Your task to perform on an android device: see sites visited before in the chrome app Image 0: 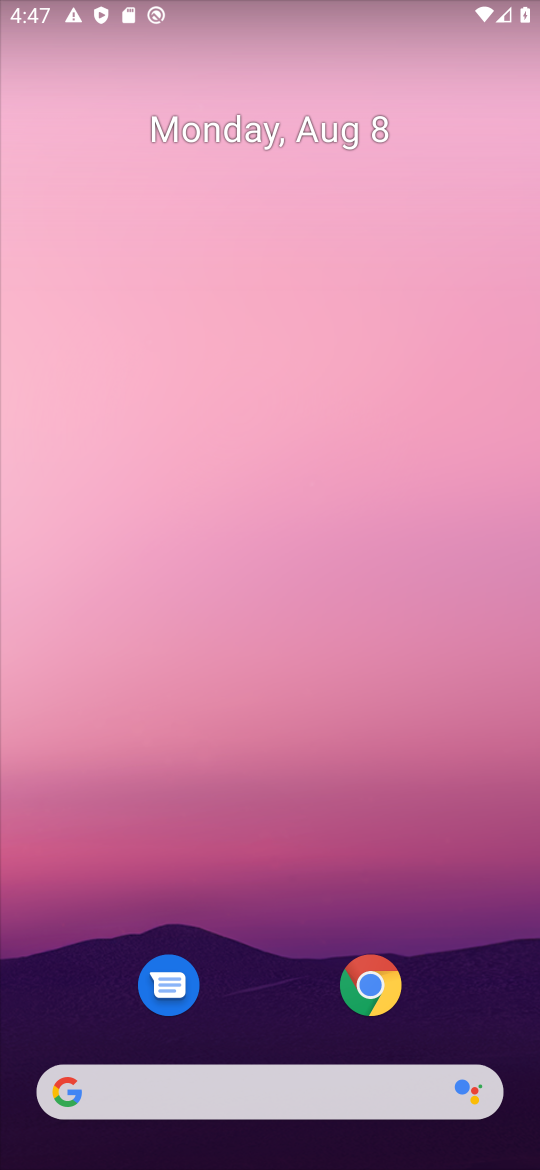
Step 0: drag from (266, 864) to (296, 265)
Your task to perform on an android device: see sites visited before in the chrome app Image 1: 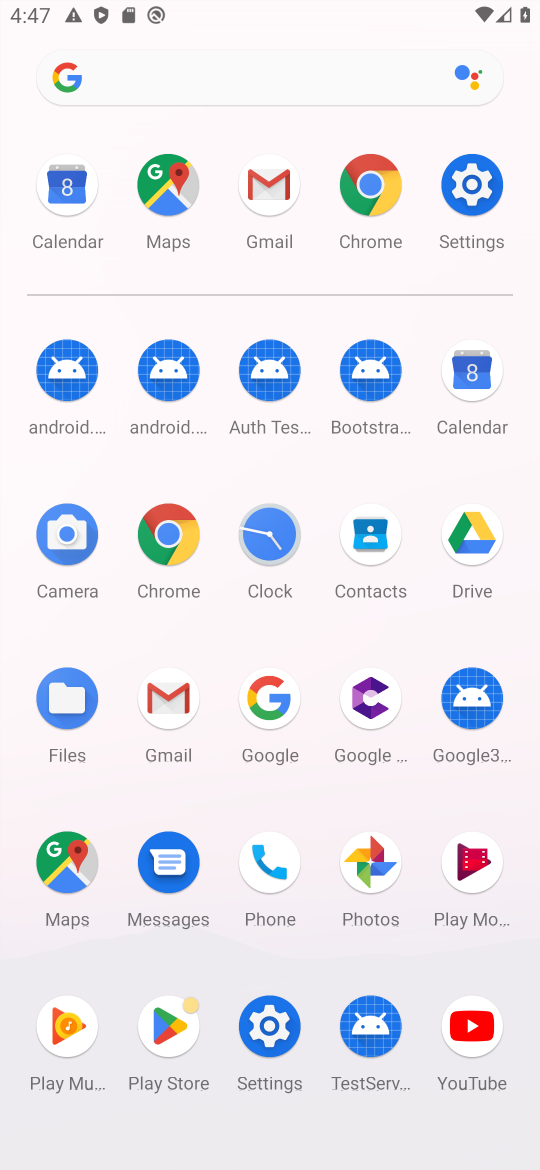
Step 1: click (387, 174)
Your task to perform on an android device: see sites visited before in the chrome app Image 2: 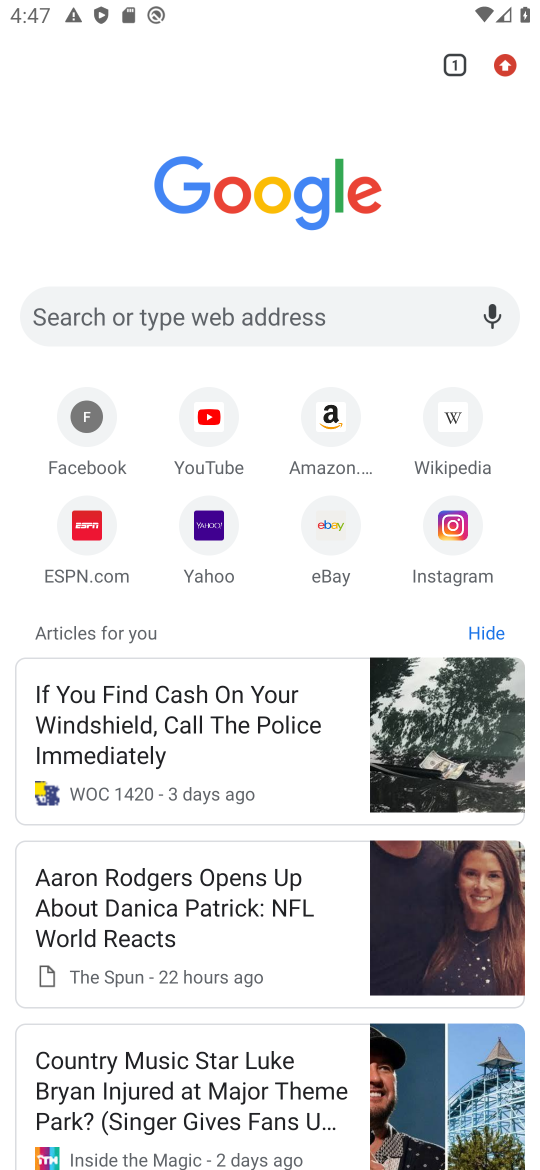
Step 2: click (518, 65)
Your task to perform on an android device: see sites visited before in the chrome app Image 3: 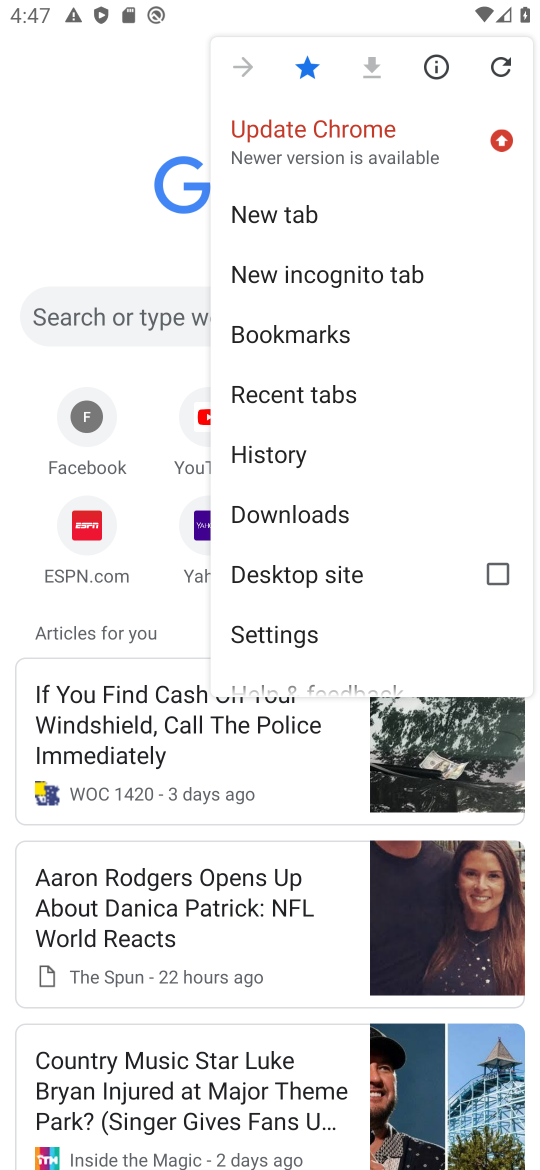
Step 3: click (301, 447)
Your task to perform on an android device: see sites visited before in the chrome app Image 4: 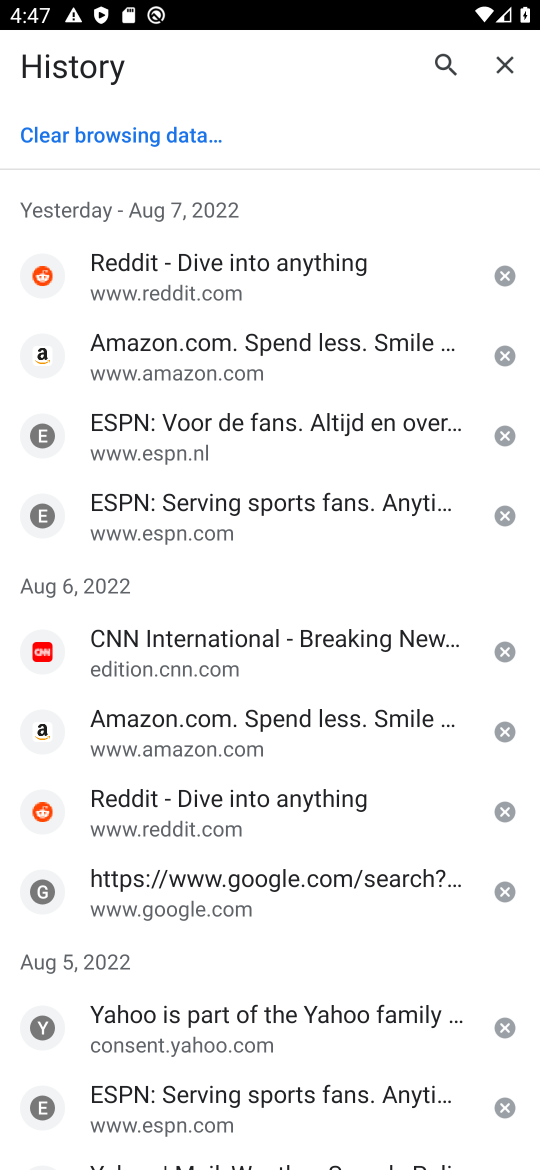
Step 4: task complete